Your task to perform on an android device: Clear the cart on bestbuy. Add razer nari to the cart on bestbuy Image 0: 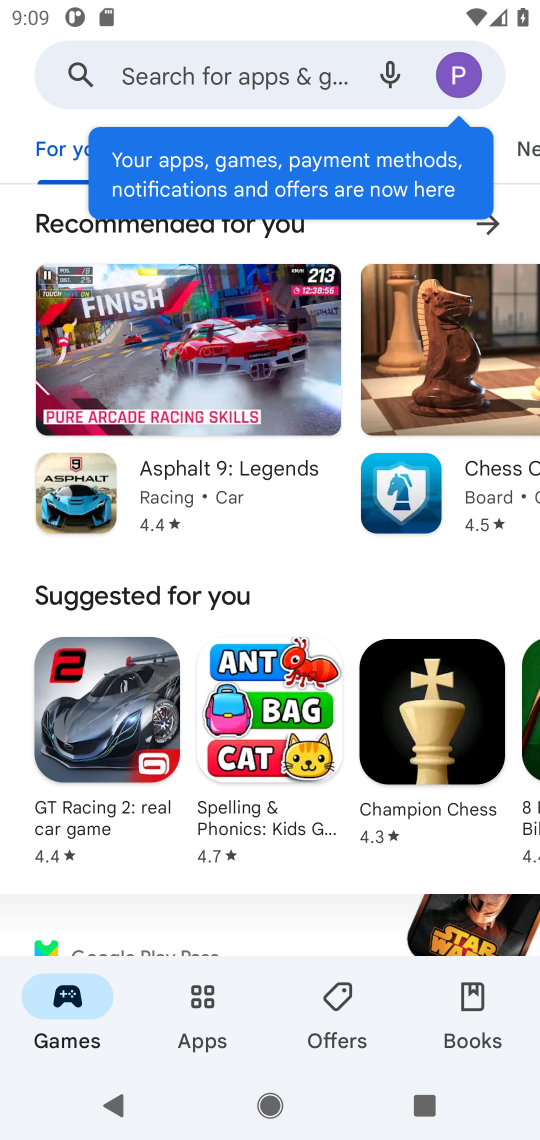
Step 0: press home button
Your task to perform on an android device: Clear the cart on bestbuy. Add razer nari to the cart on bestbuy Image 1: 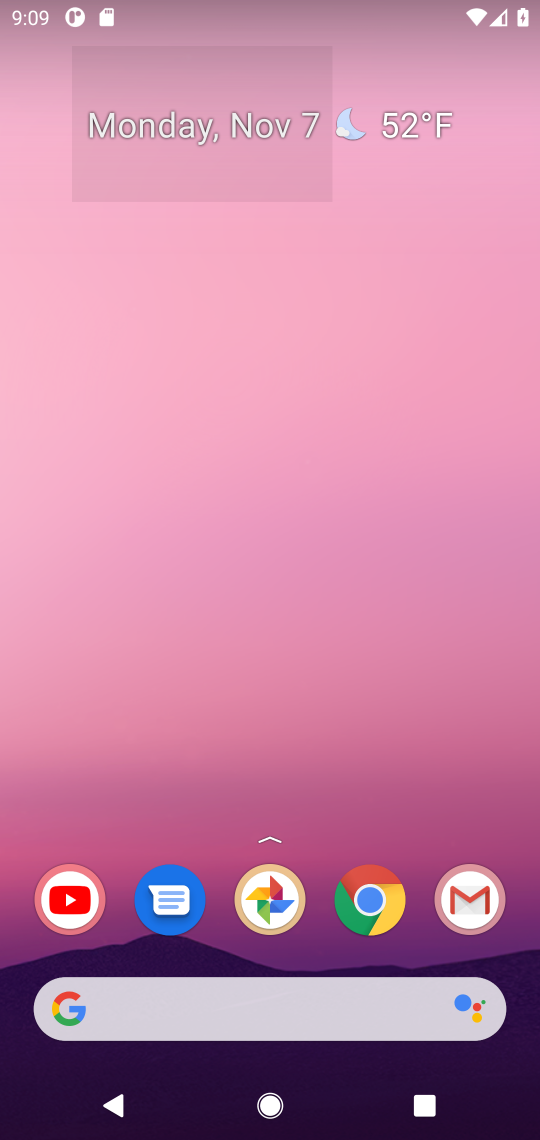
Step 1: click (277, 1022)
Your task to perform on an android device: Clear the cart on bestbuy. Add razer nari to the cart on bestbuy Image 2: 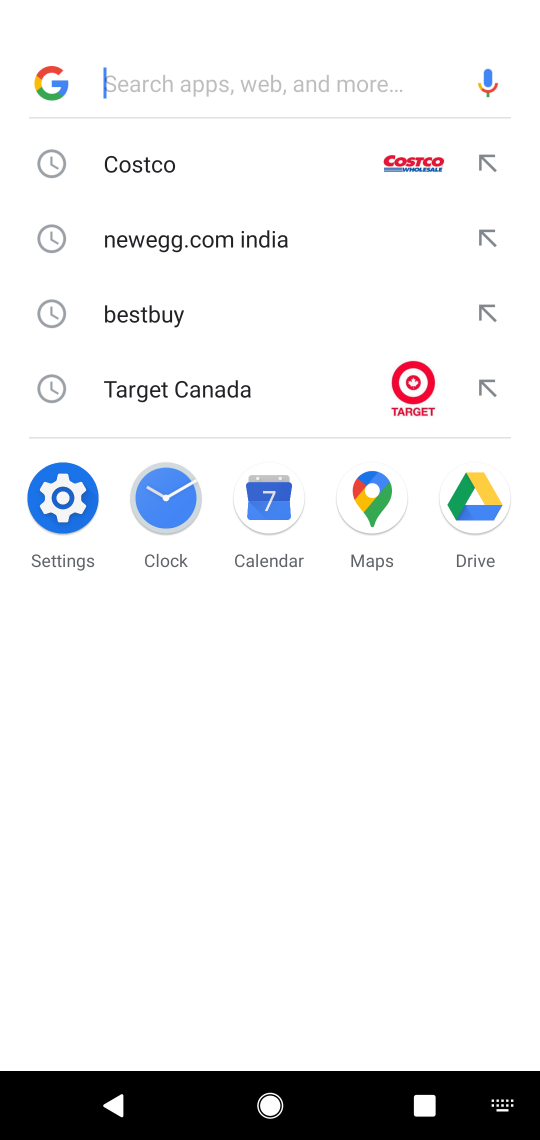
Step 2: click (218, 306)
Your task to perform on an android device: Clear the cart on bestbuy. Add razer nari to the cart on bestbuy Image 3: 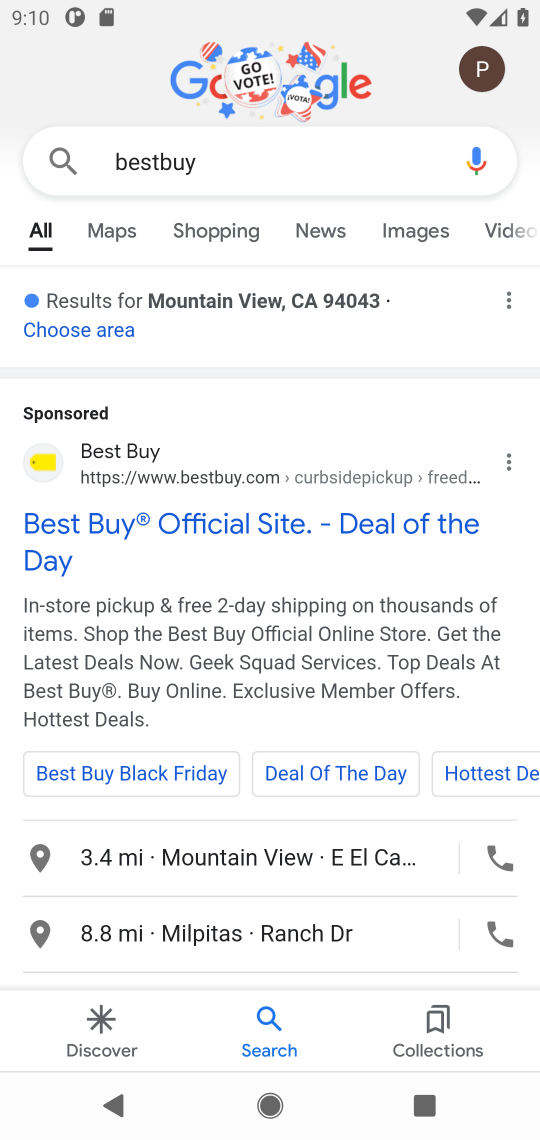
Step 3: click (127, 530)
Your task to perform on an android device: Clear the cart on bestbuy. Add razer nari to the cart on bestbuy Image 4: 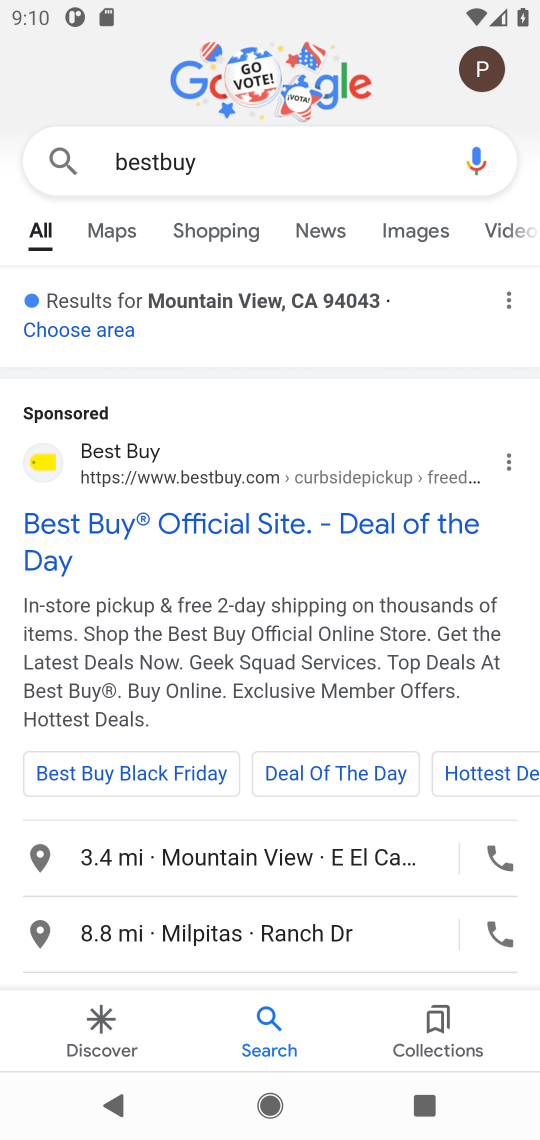
Step 4: task complete